Your task to perform on an android device: Open Chrome and go to settings Image 0: 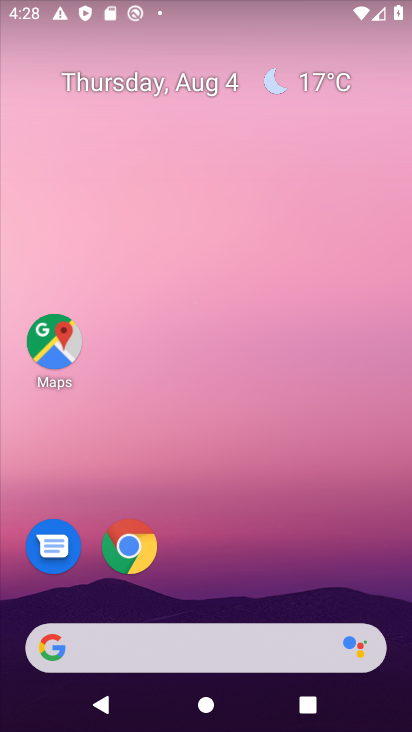
Step 0: drag from (129, 337) to (239, 534)
Your task to perform on an android device: Open Chrome and go to settings Image 1: 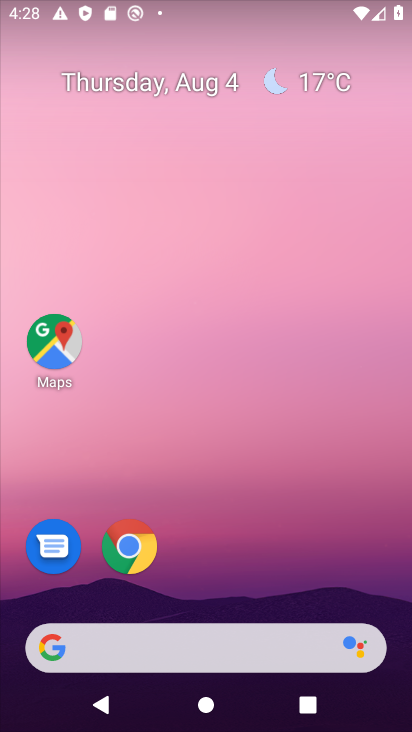
Step 1: click (137, 556)
Your task to perform on an android device: Open Chrome and go to settings Image 2: 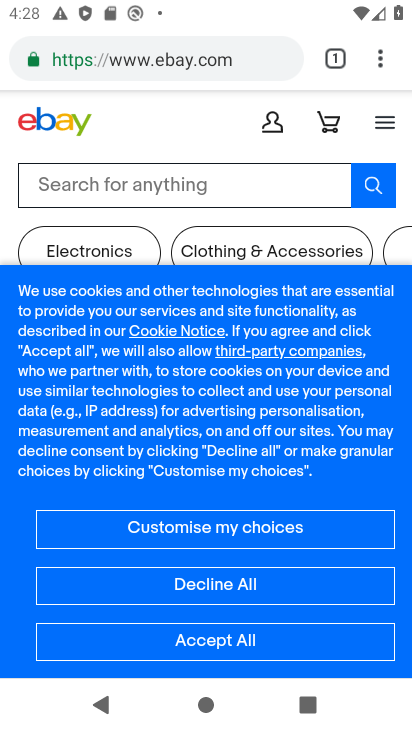
Step 2: click (377, 61)
Your task to perform on an android device: Open Chrome and go to settings Image 3: 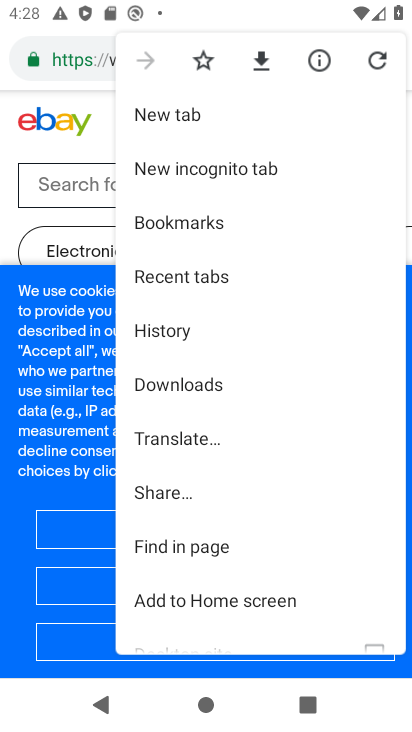
Step 3: drag from (219, 559) to (213, 280)
Your task to perform on an android device: Open Chrome and go to settings Image 4: 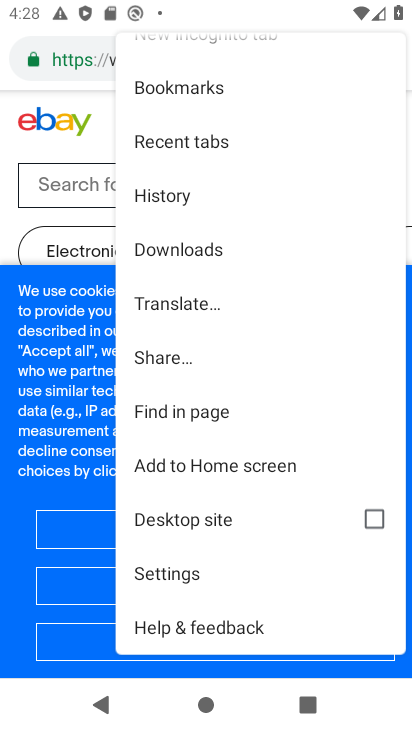
Step 4: click (169, 573)
Your task to perform on an android device: Open Chrome and go to settings Image 5: 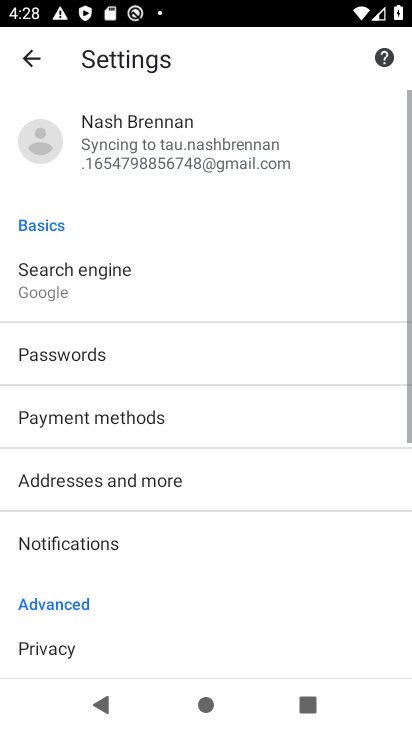
Step 5: task complete